Your task to perform on an android device: toggle wifi Image 0: 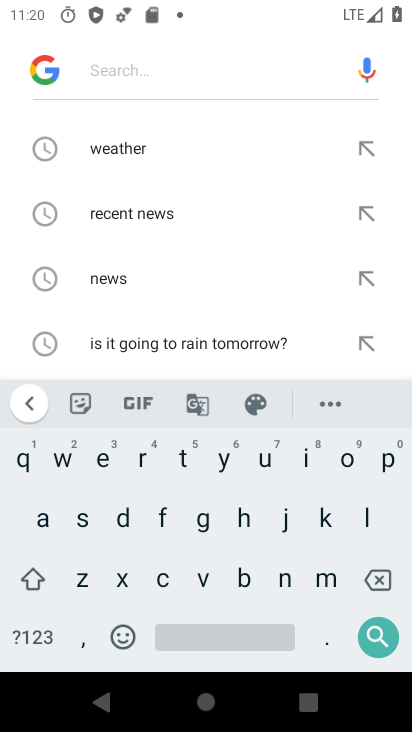
Step 0: press back button
Your task to perform on an android device: toggle wifi Image 1: 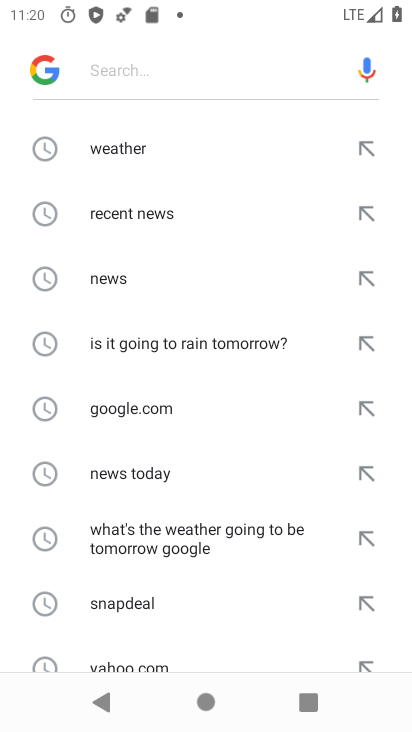
Step 1: press back button
Your task to perform on an android device: toggle wifi Image 2: 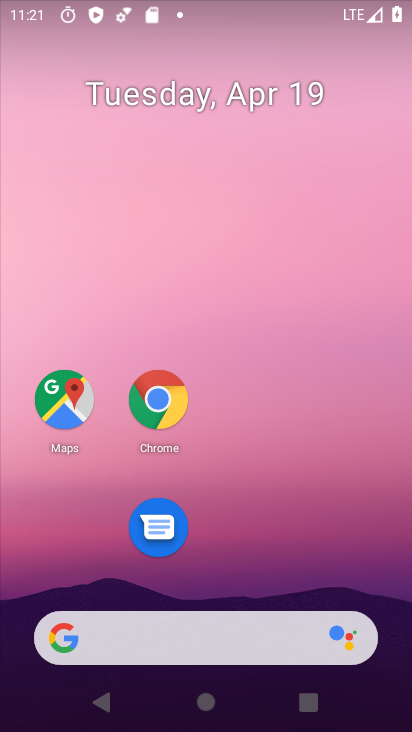
Step 2: drag from (237, 672) to (170, 133)
Your task to perform on an android device: toggle wifi Image 3: 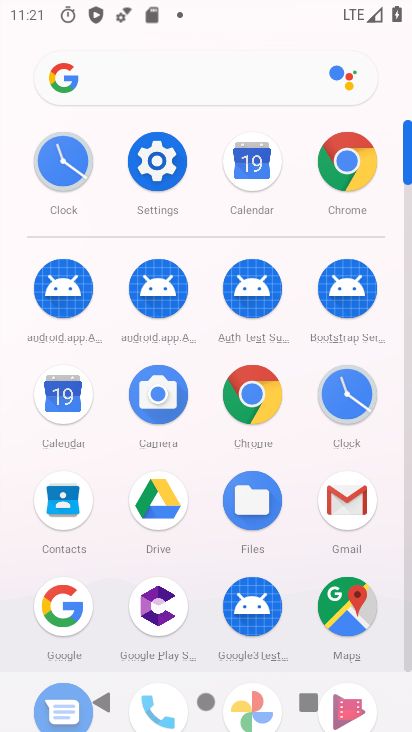
Step 3: click (147, 155)
Your task to perform on an android device: toggle wifi Image 4: 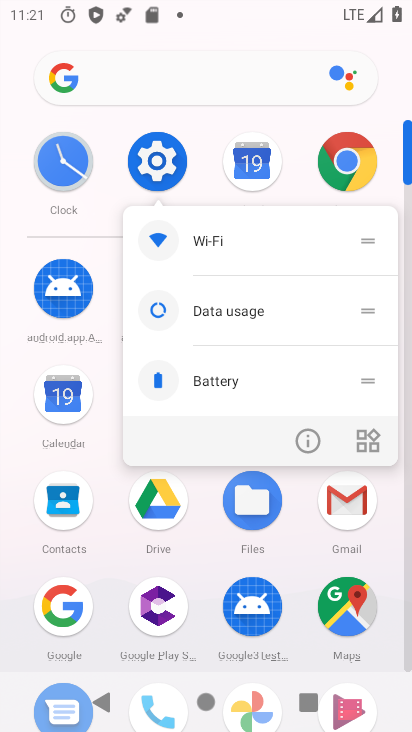
Step 4: click (156, 166)
Your task to perform on an android device: toggle wifi Image 5: 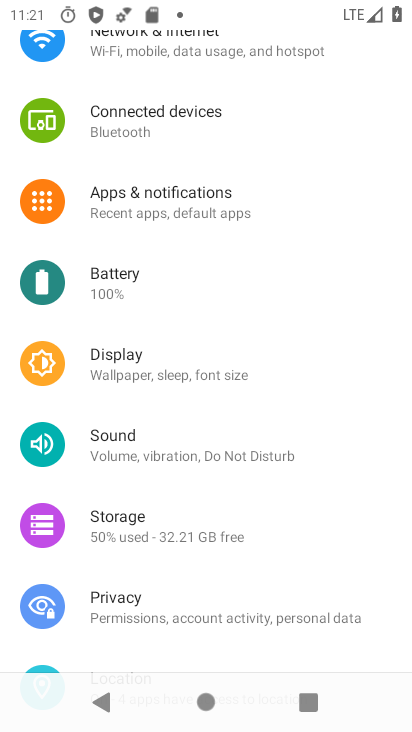
Step 5: drag from (171, 134) to (164, 534)
Your task to perform on an android device: toggle wifi Image 6: 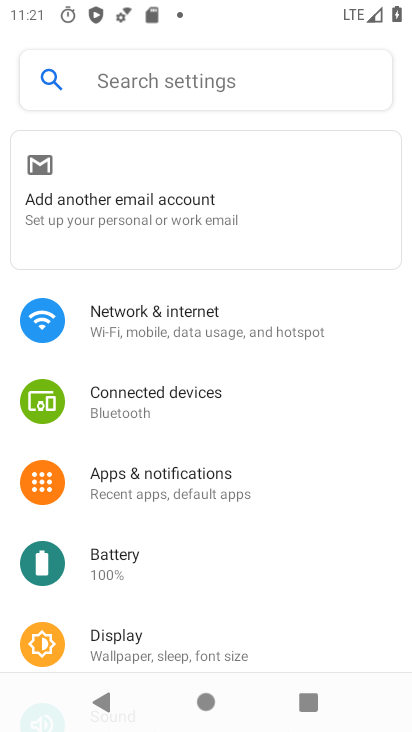
Step 6: click (165, 324)
Your task to perform on an android device: toggle wifi Image 7: 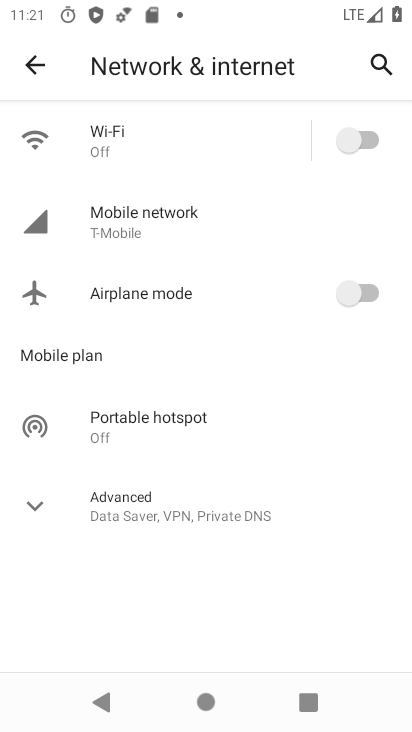
Step 7: click (134, 139)
Your task to perform on an android device: toggle wifi Image 8: 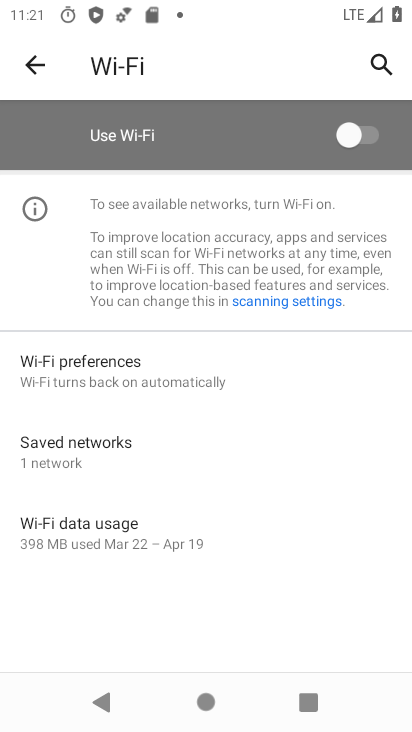
Step 8: task complete